Your task to perform on an android device: What is the recent news? Image 0: 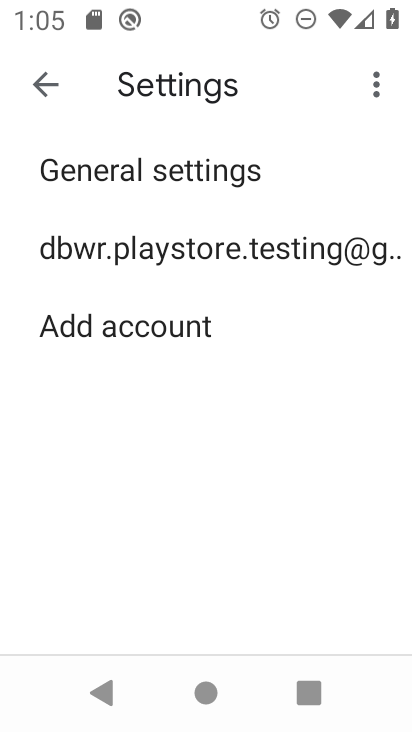
Step 0: press home button
Your task to perform on an android device: What is the recent news? Image 1: 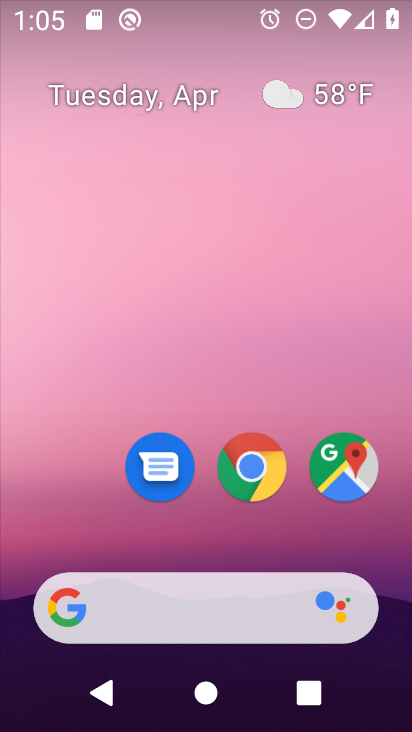
Step 1: click (195, 604)
Your task to perform on an android device: What is the recent news? Image 2: 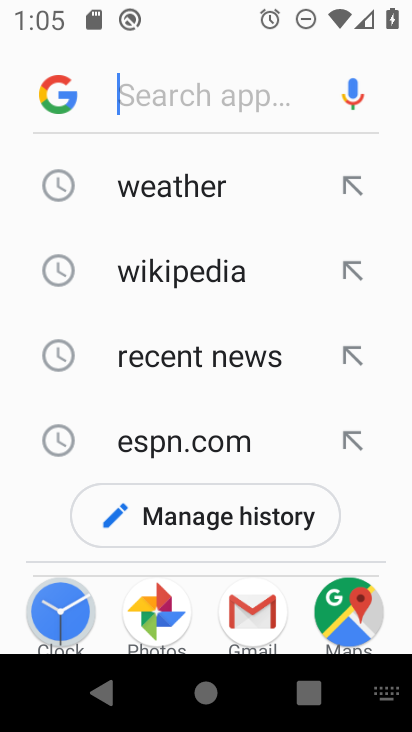
Step 2: click (43, 96)
Your task to perform on an android device: What is the recent news? Image 3: 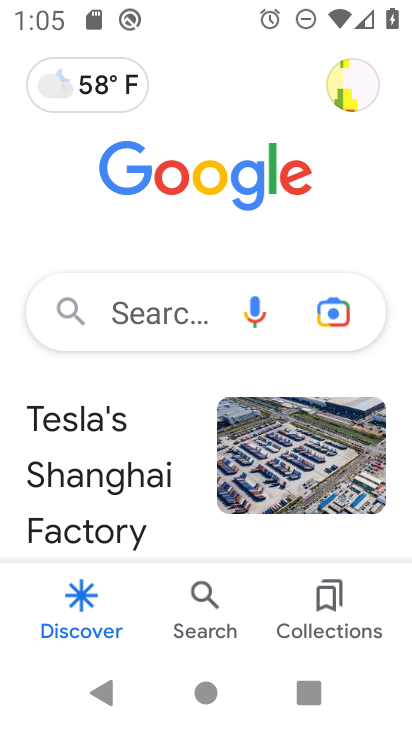
Step 3: task complete